Your task to perform on an android device: all mails in gmail Image 0: 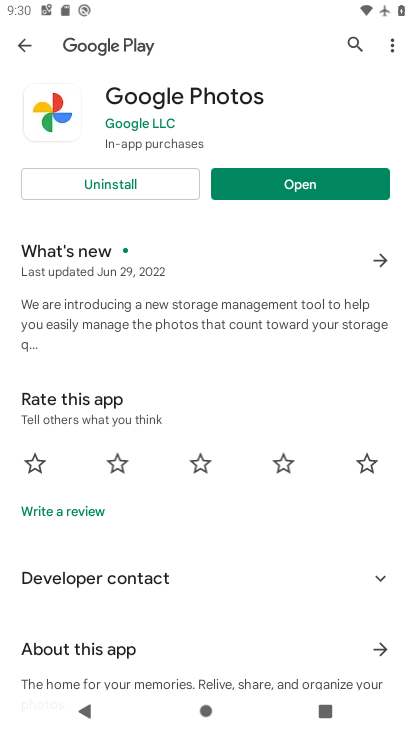
Step 0: press home button
Your task to perform on an android device: all mails in gmail Image 1: 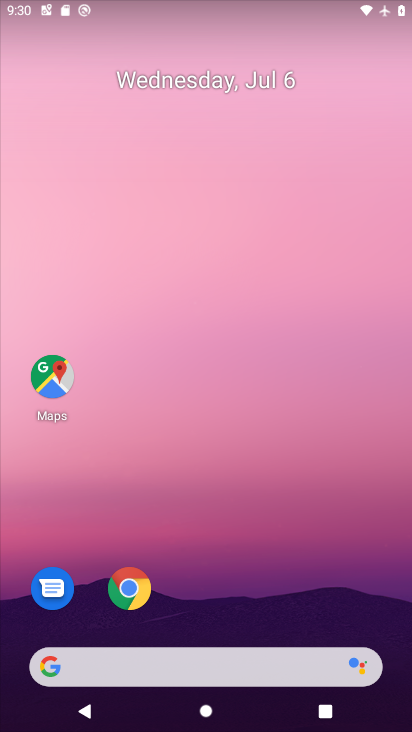
Step 1: drag from (208, 668) to (380, 33)
Your task to perform on an android device: all mails in gmail Image 2: 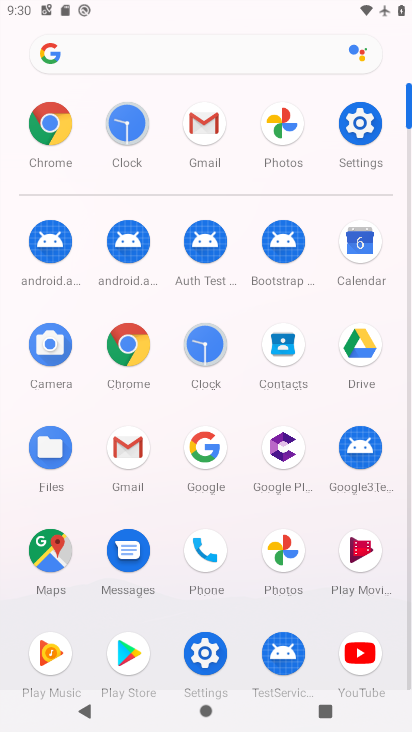
Step 2: click (123, 442)
Your task to perform on an android device: all mails in gmail Image 3: 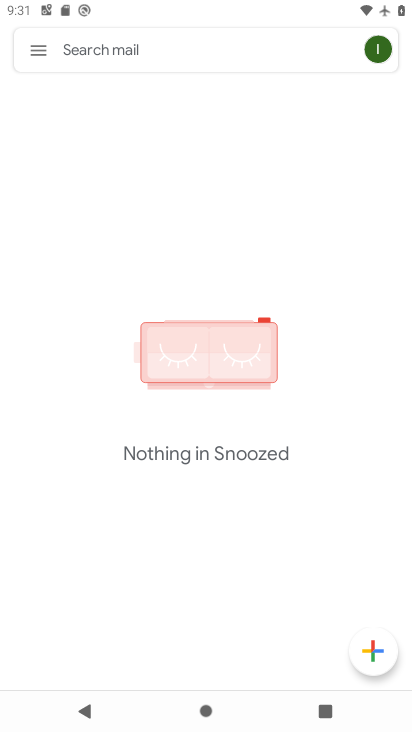
Step 3: click (38, 44)
Your task to perform on an android device: all mails in gmail Image 4: 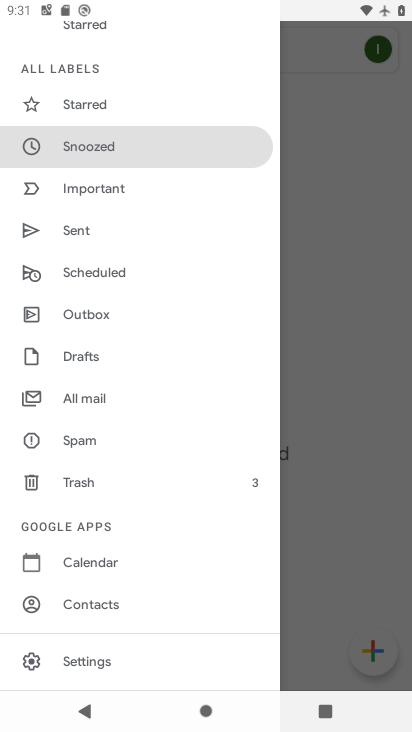
Step 4: click (91, 394)
Your task to perform on an android device: all mails in gmail Image 5: 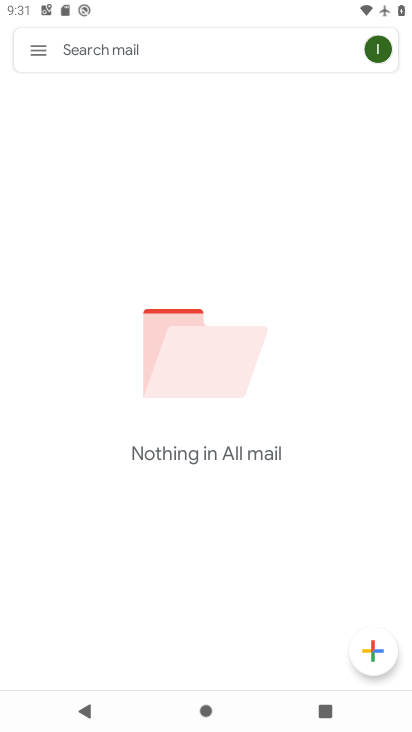
Step 5: task complete